Your task to perform on an android device: turn off notifications in google photos Image 0: 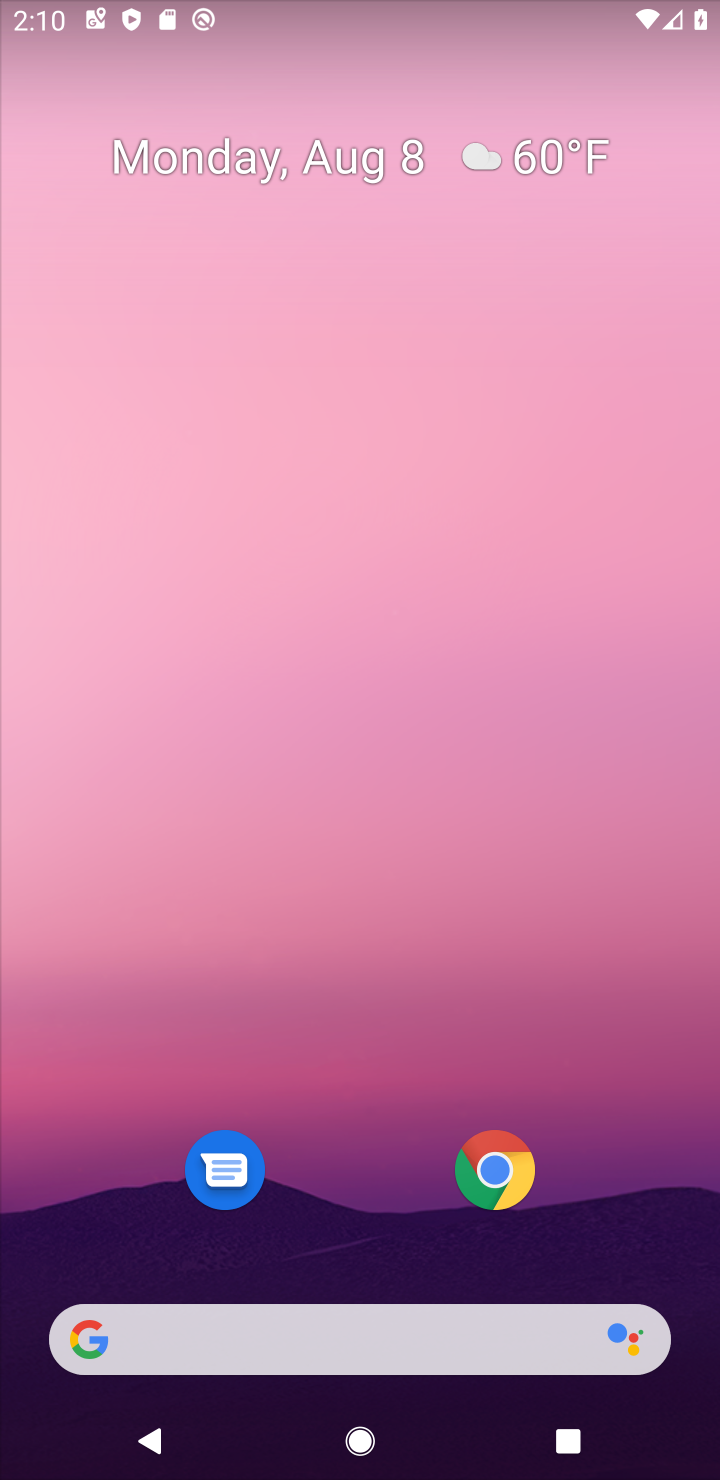
Step 0: drag from (366, 1121) to (337, 316)
Your task to perform on an android device: turn off notifications in google photos Image 1: 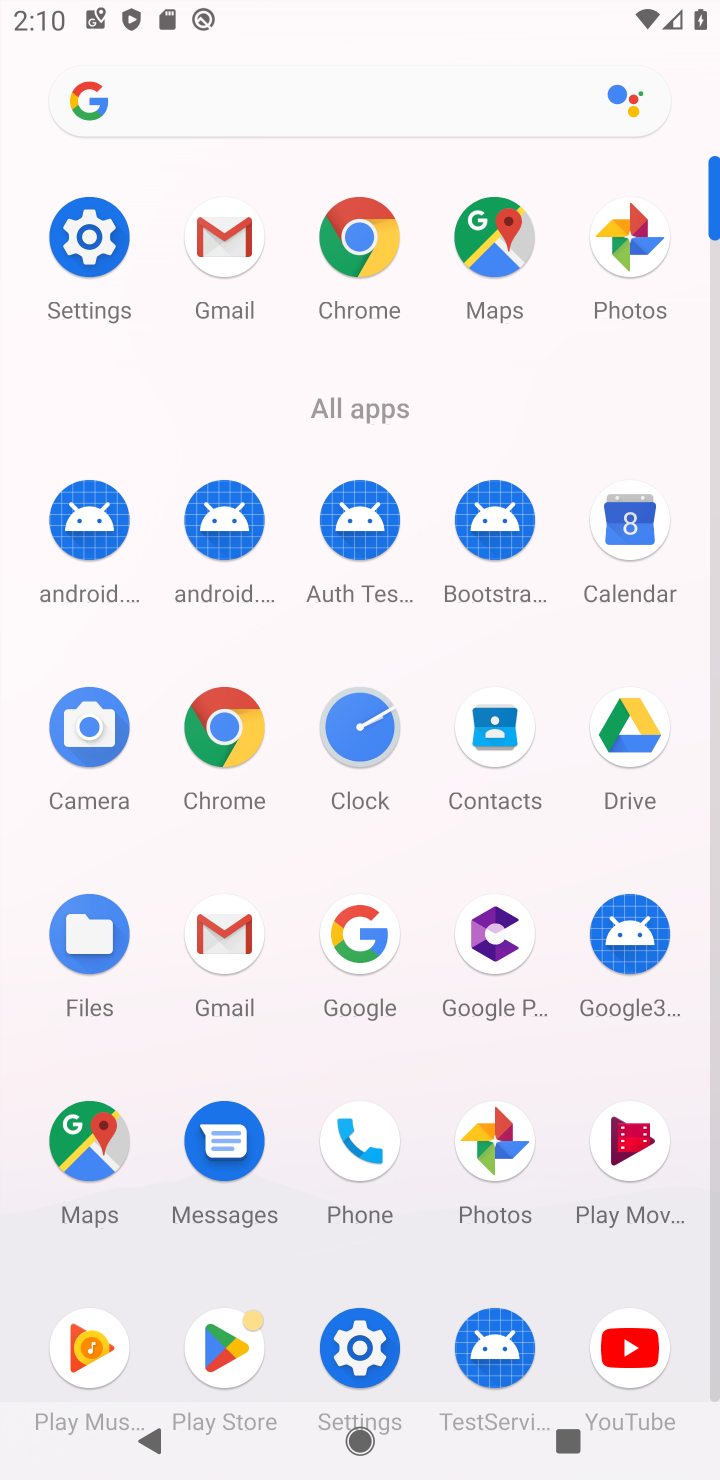
Step 1: click (489, 1124)
Your task to perform on an android device: turn off notifications in google photos Image 2: 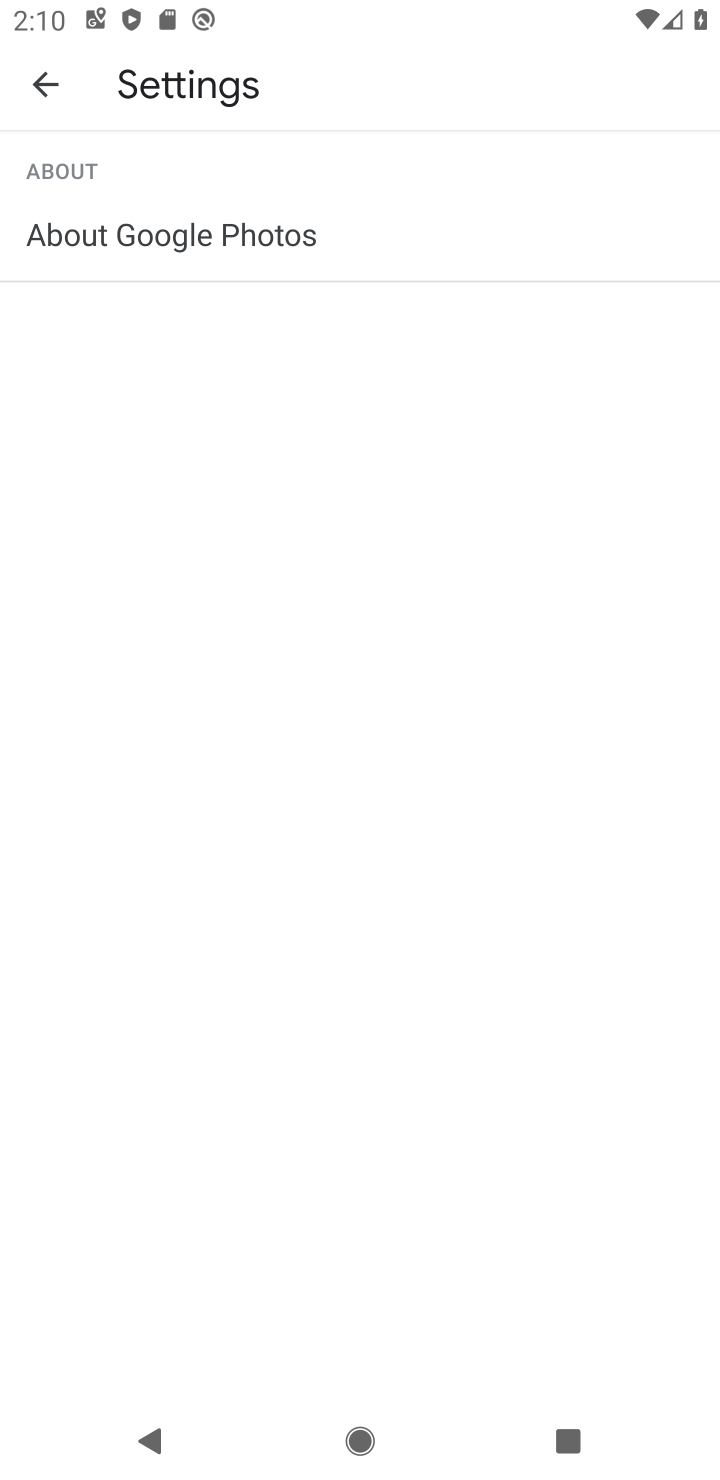
Step 2: click (39, 75)
Your task to perform on an android device: turn off notifications in google photos Image 3: 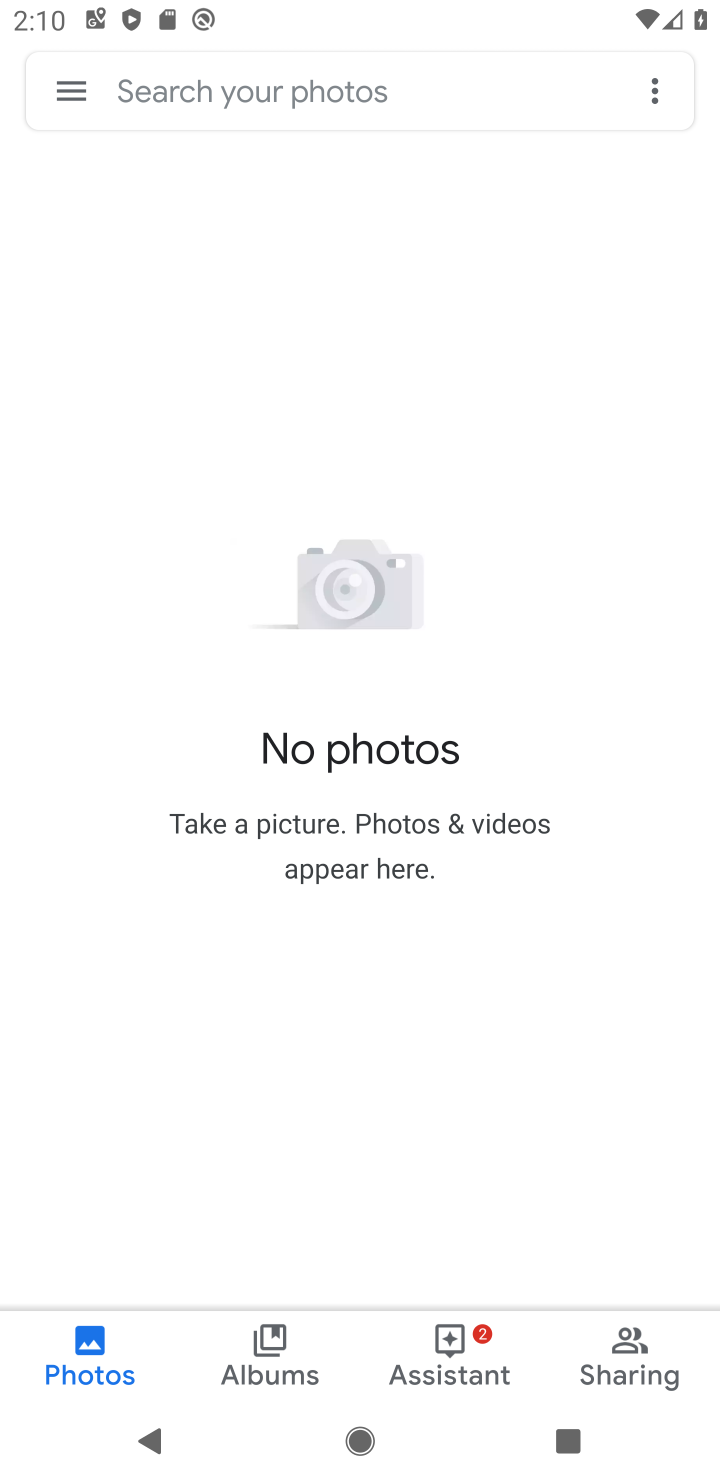
Step 3: click (645, 94)
Your task to perform on an android device: turn off notifications in google photos Image 4: 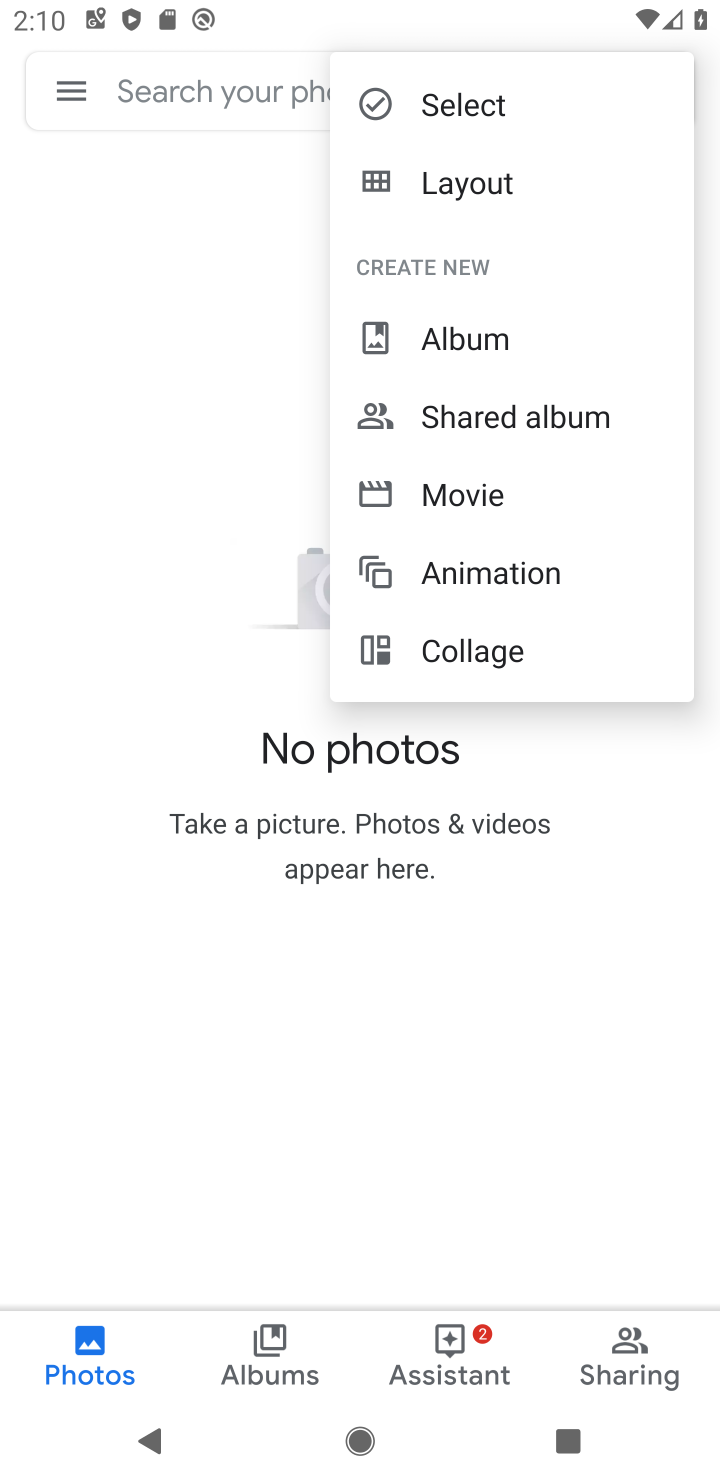
Step 4: click (200, 838)
Your task to perform on an android device: turn off notifications in google photos Image 5: 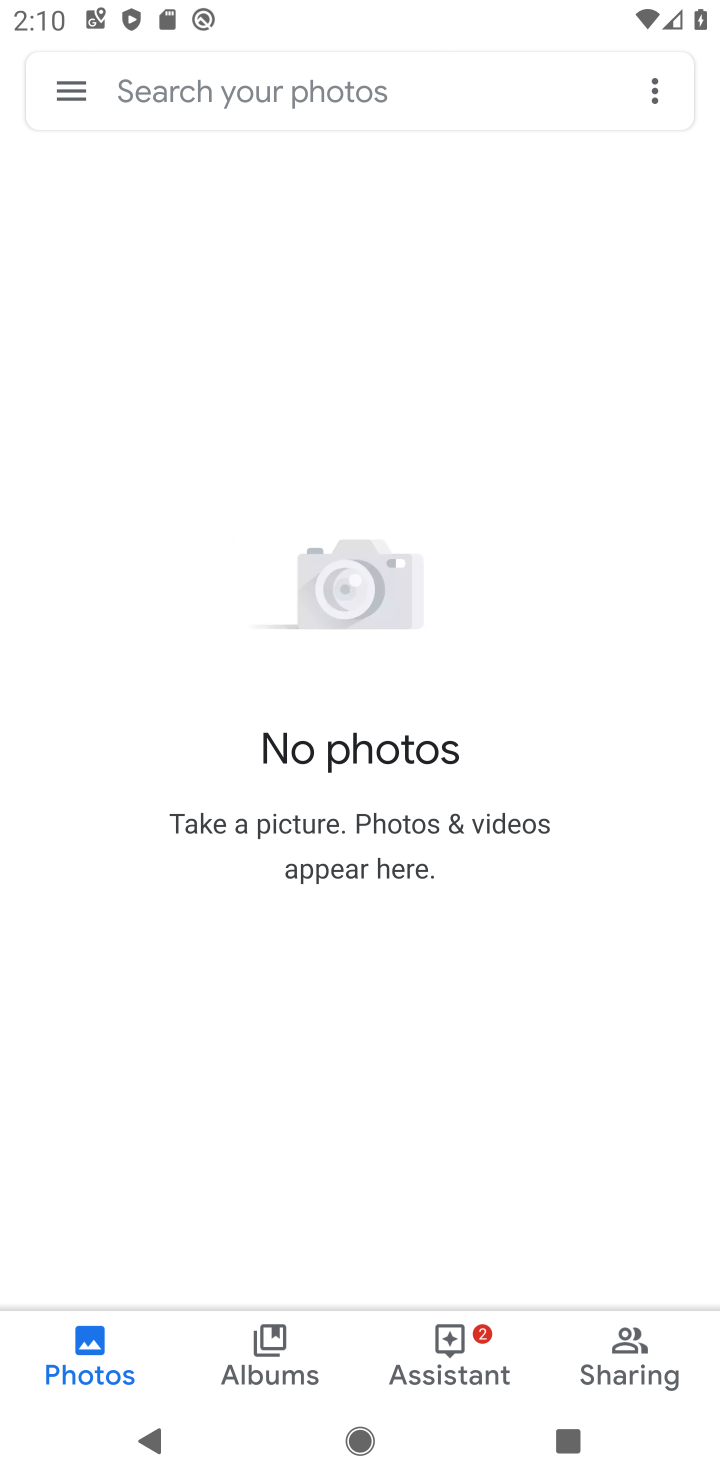
Step 5: click (657, 89)
Your task to perform on an android device: turn off notifications in google photos Image 6: 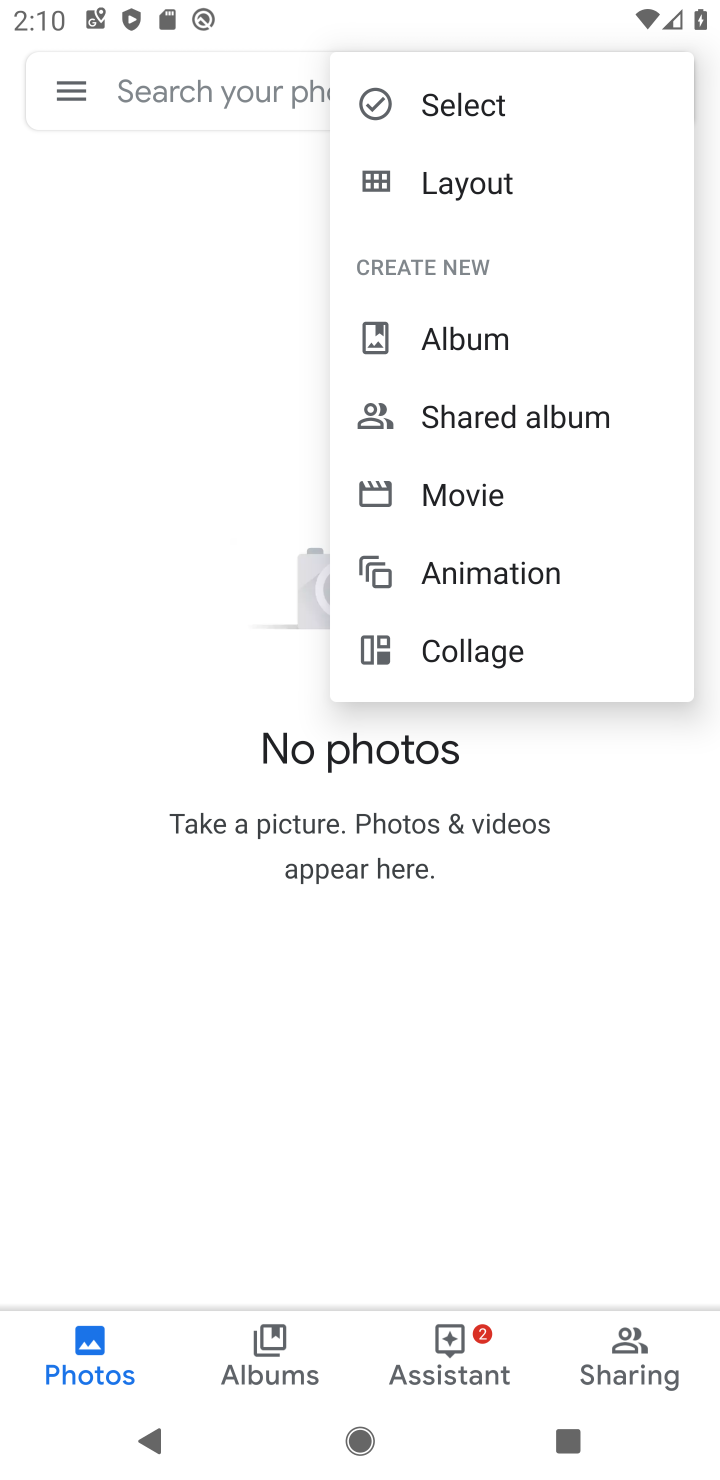
Step 6: click (37, 79)
Your task to perform on an android device: turn off notifications in google photos Image 7: 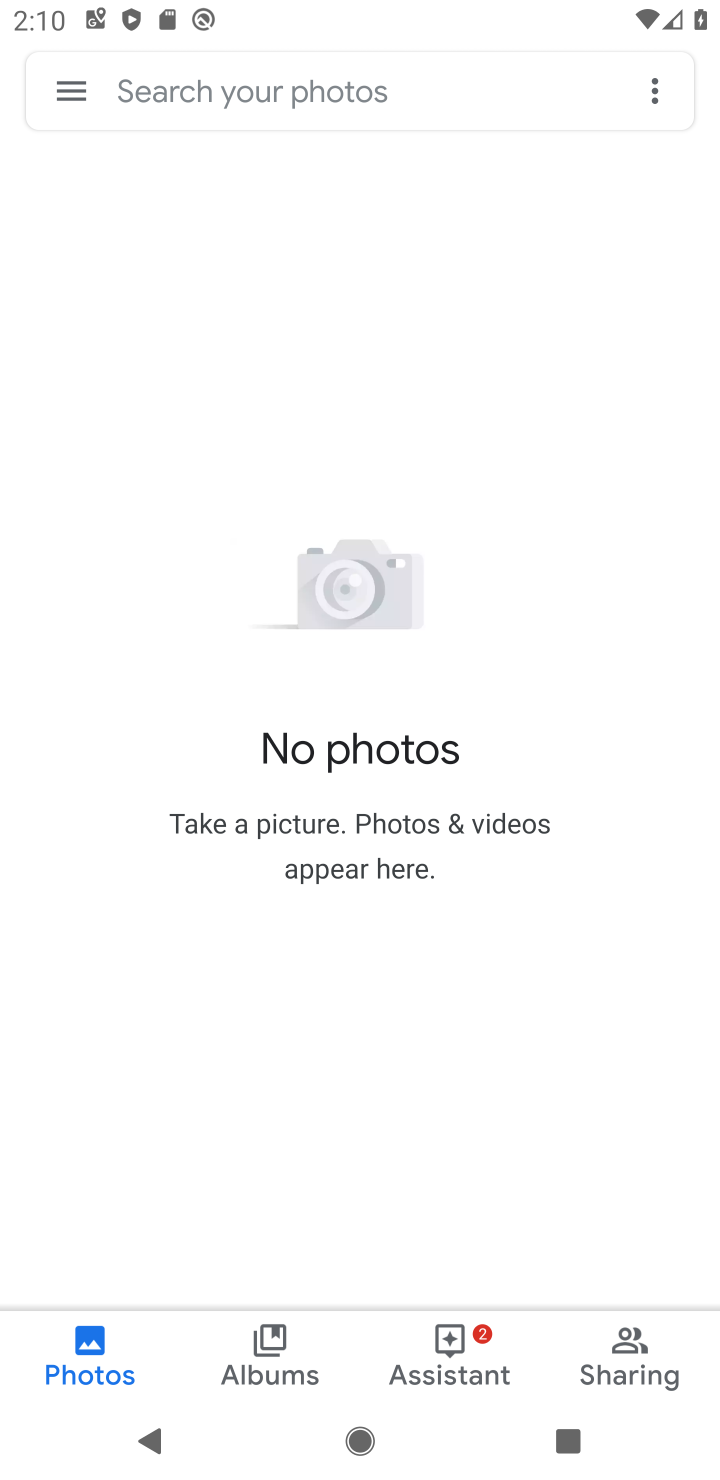
Step 7: click (62, 95)
Your task to perform on an android device: turn off notifications in google photos Image 8: 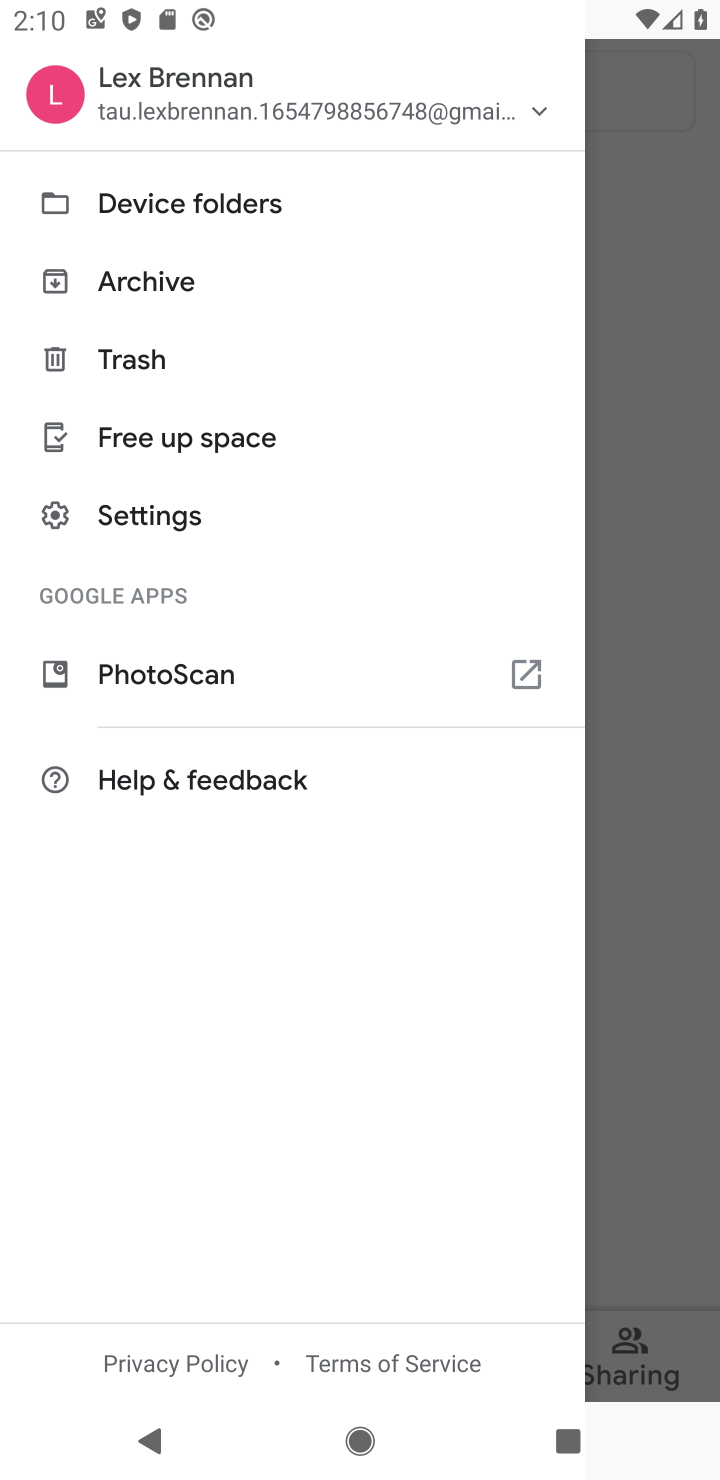
Step 8: click (115, 524)
Your task to perform on an android device: turn off notifications in google photos Image 9: 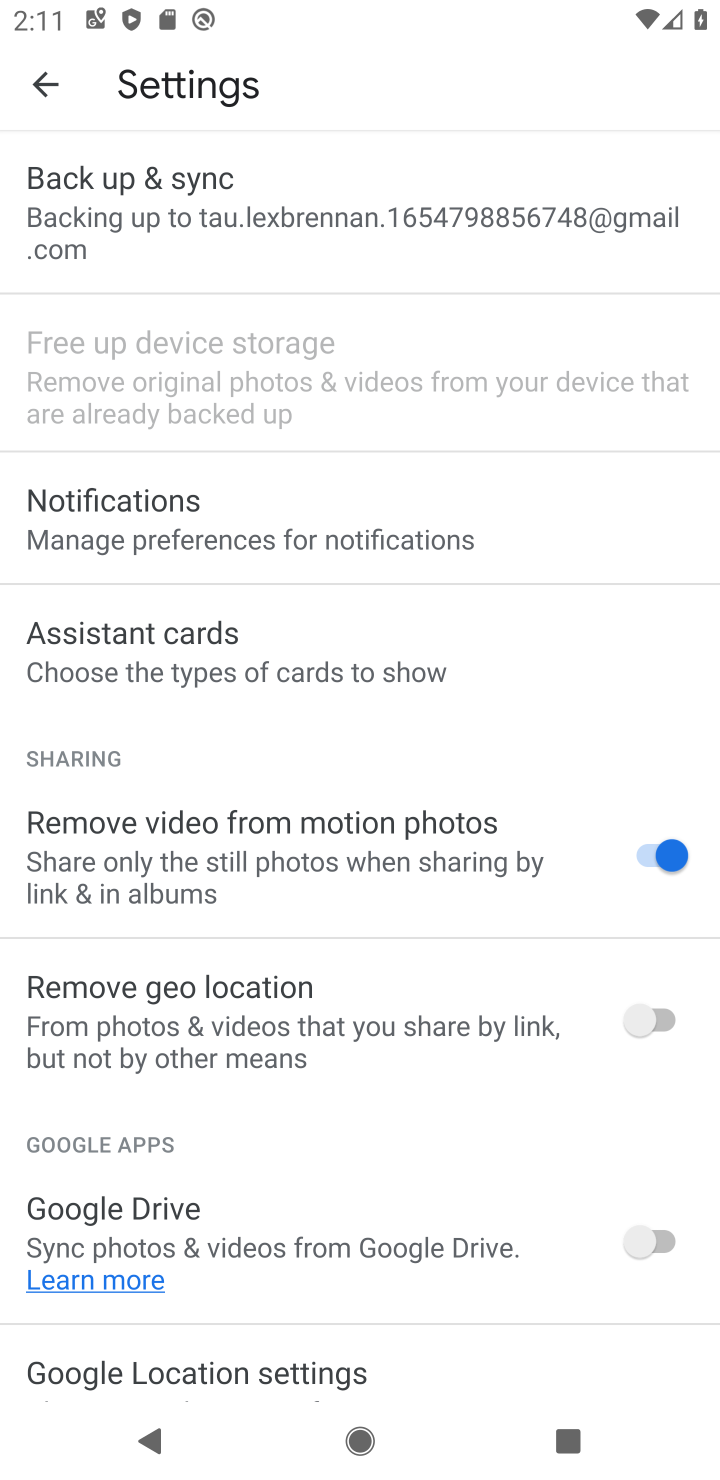
Step 9: click (212, 536)
Your task to perform on an android device: turn off notifications in google photos Image 10: 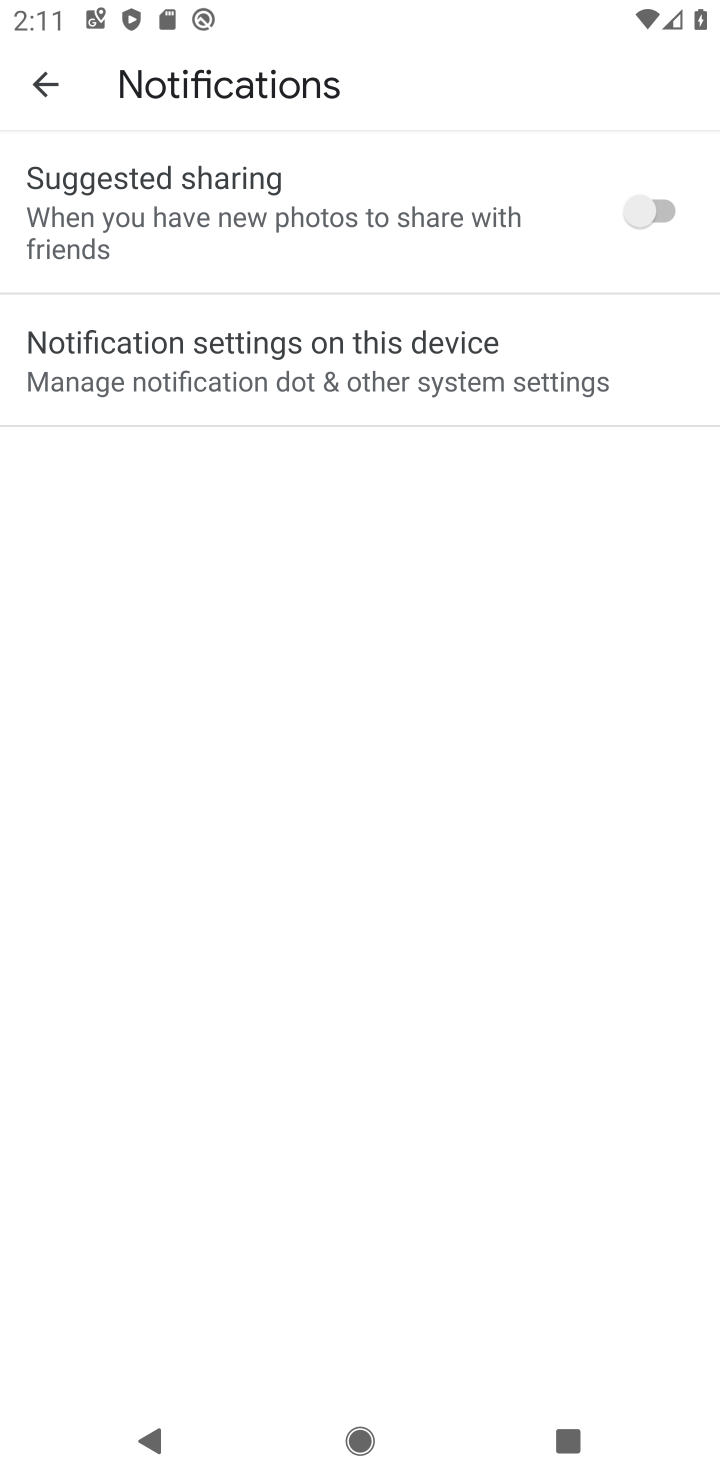
Step 10: click (296, 358)
Your task to perform on an android device: turn off notifications in google photos Image 11: 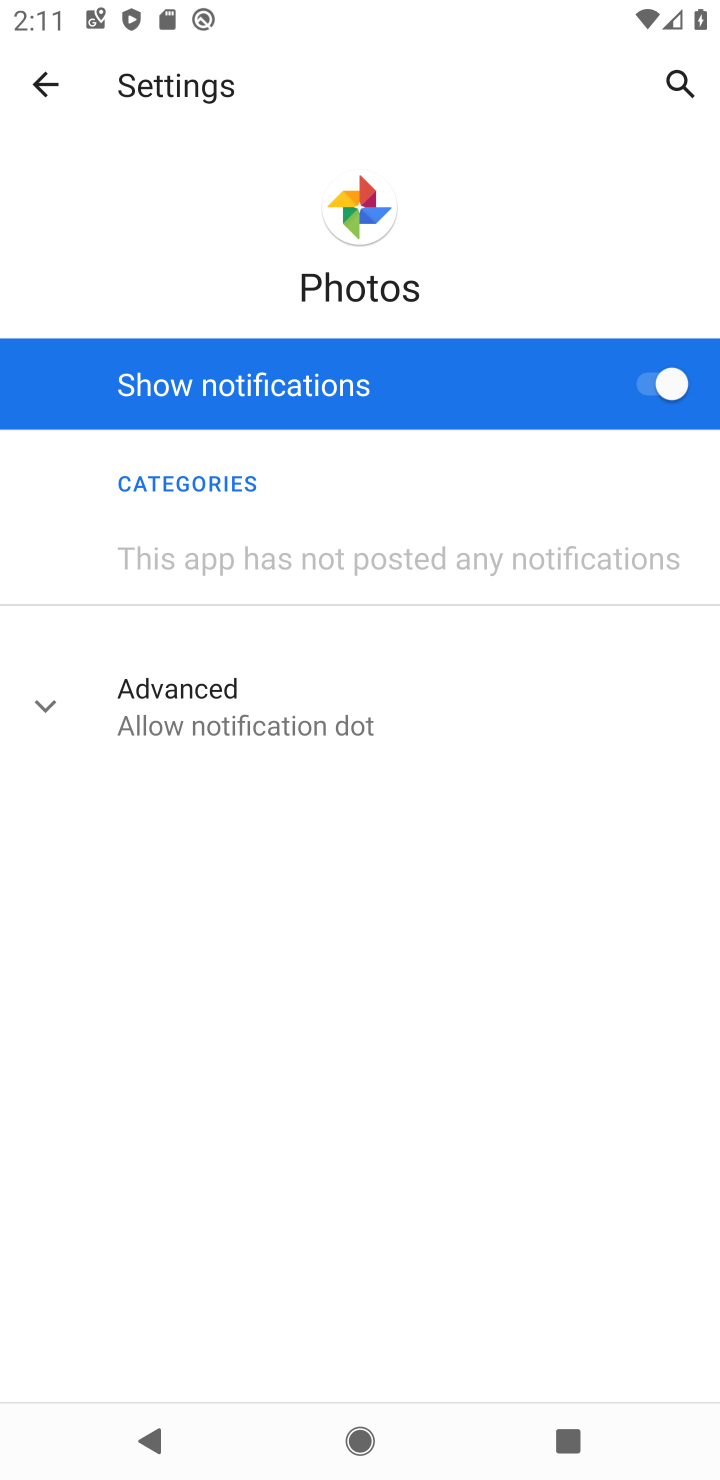
Step 11: click (651, 393)
Your task to perform on an android device: turn off notifications in google photos Image 12: 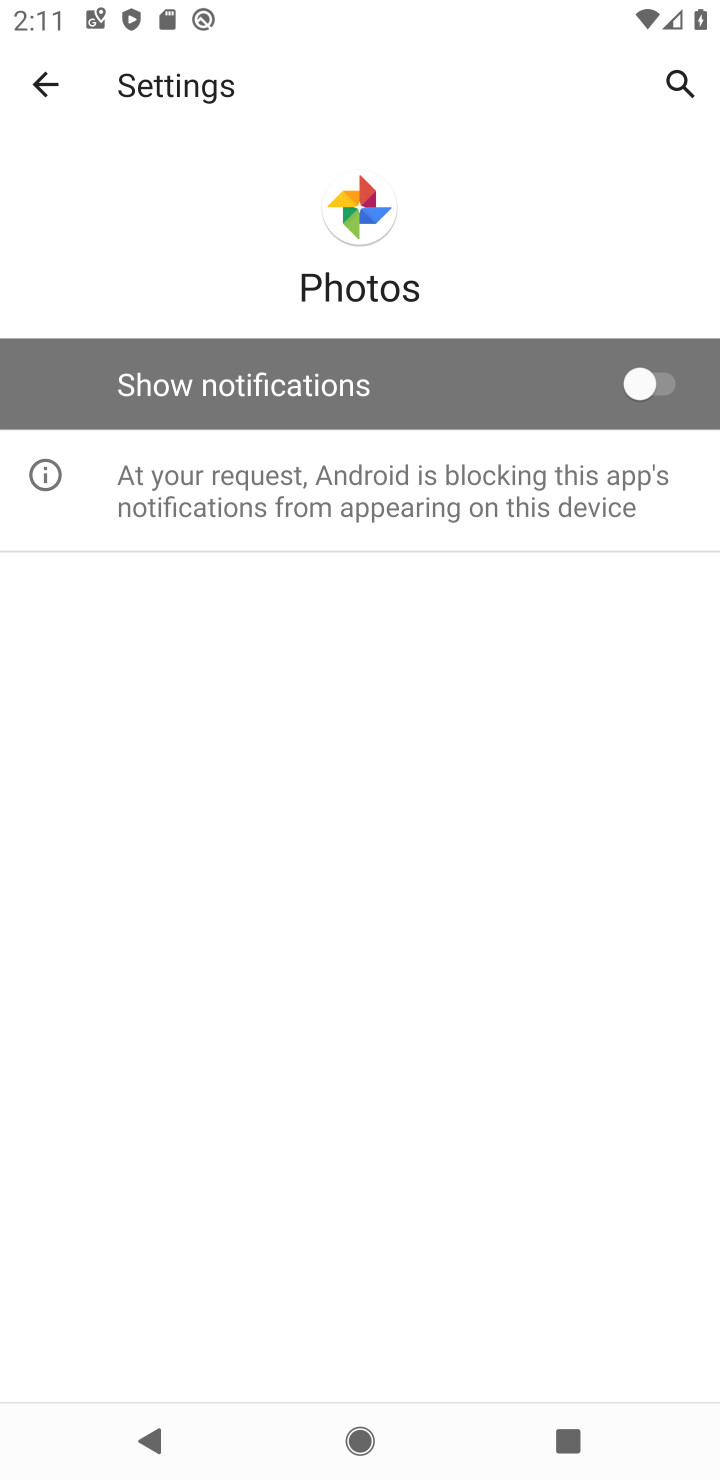
Step 12: task complete